Your task to perform on an android device: add a contact in the contacts app Image 0: 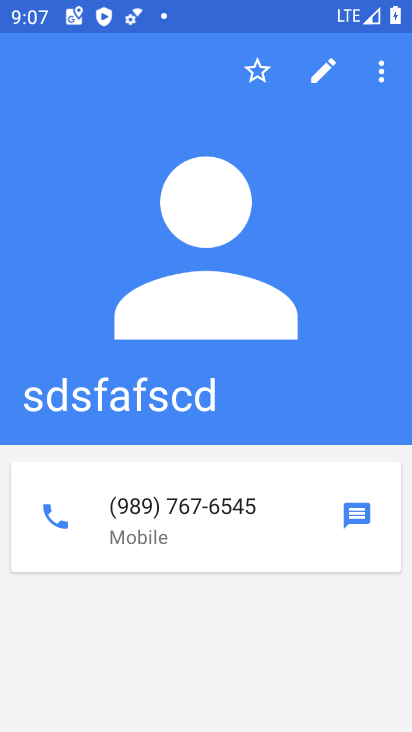
Step 0: press home button
Your task to perform on an android device: add a contact in the contacts app Image 1: 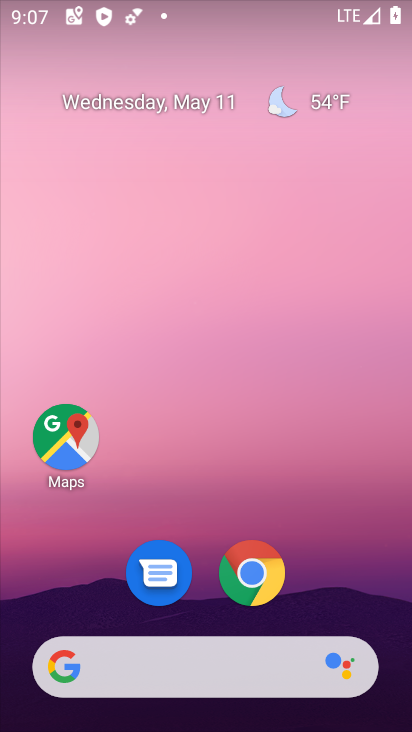
Step 1: drag from (184, 679) to (298, 68)
Your task to perform on an android device: add a contact in the contacts app Image 2: 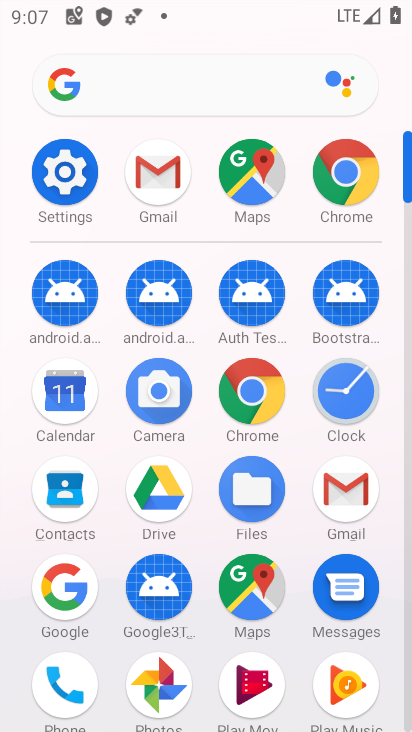
Step 2: click (75, 504)
Your task to perform on an android device: add a contact in the contacts app Image 3: 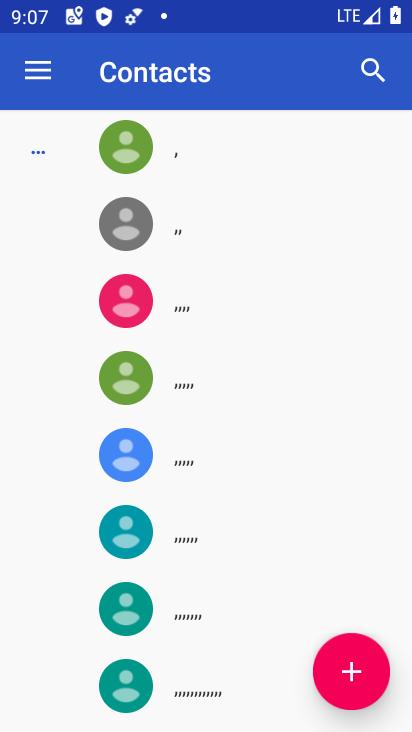
Step 3: click (374, 662)
Your task to perform on an android device: add a contact in the contacts app Image 4: 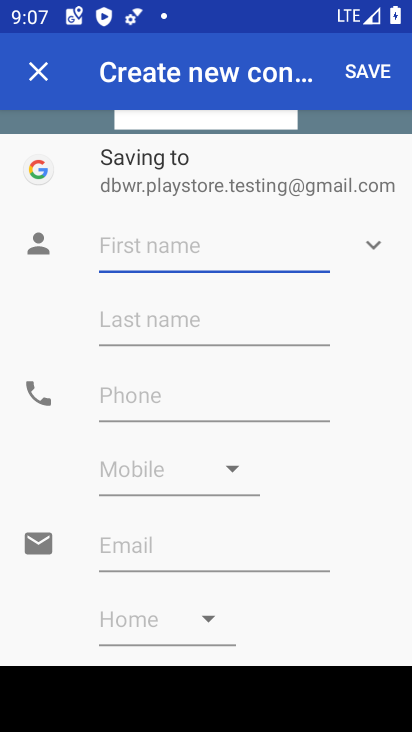
Step 4: type "hgfghytr"
Your task to perform on an android device: add a contact in the contacts app Image 5: 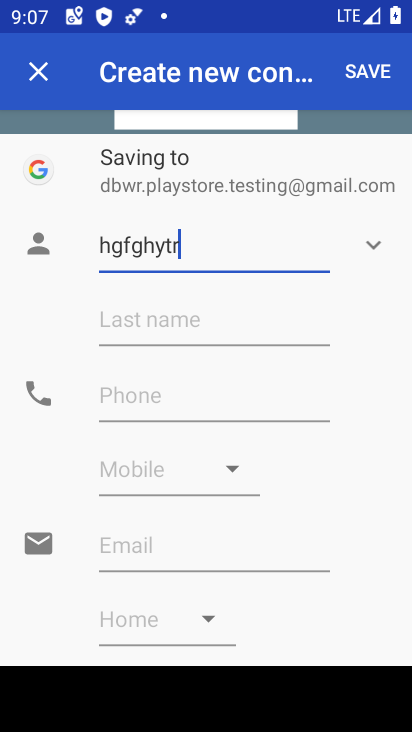
Step 5: click (119, 390)
Your task to perform on an android device: add a contact in the contacts app Image 6: 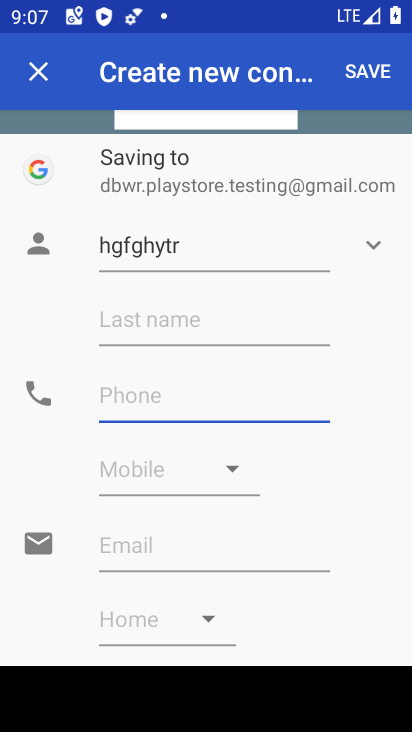
Step 6: type "9897897678"
Your task to perform on an android device: add a contact in the contacts app Image 7: 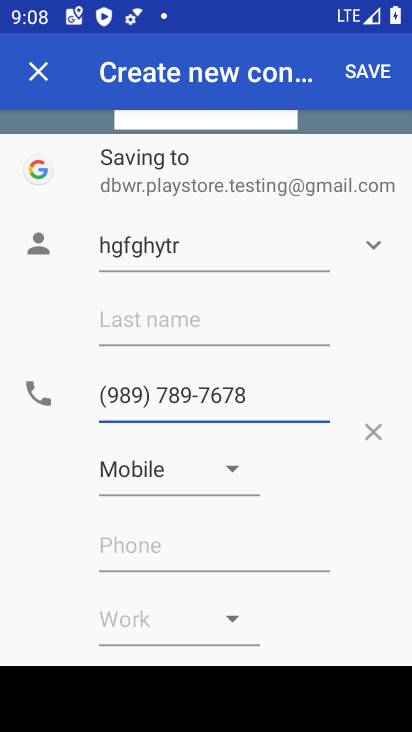
Step 7: click (363, 77)
Your task to perform on an android device: add a contact in the contacts app Image 8: 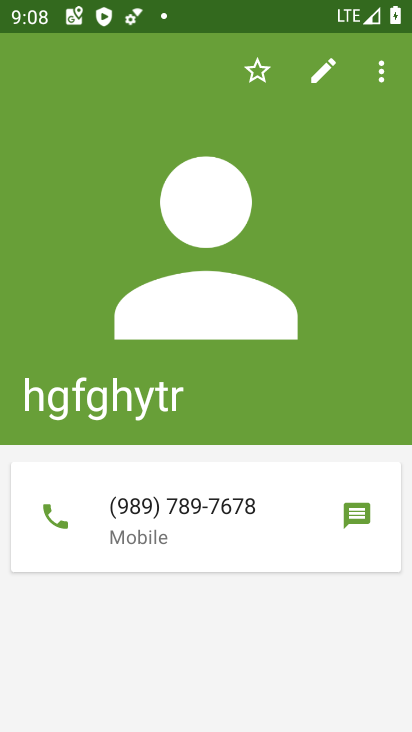
Step 8: task complete